Your task to perform on an android device: Open settings Image 0: 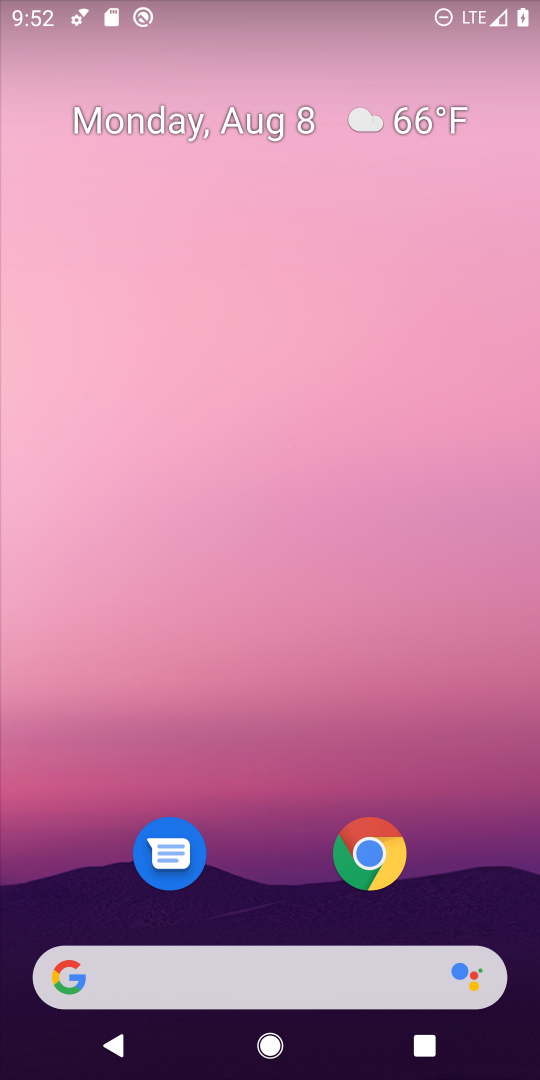
Step 0: drag from (284, 860) to (1, 188)
Your task to perform on an android device: Open settings Image 1: 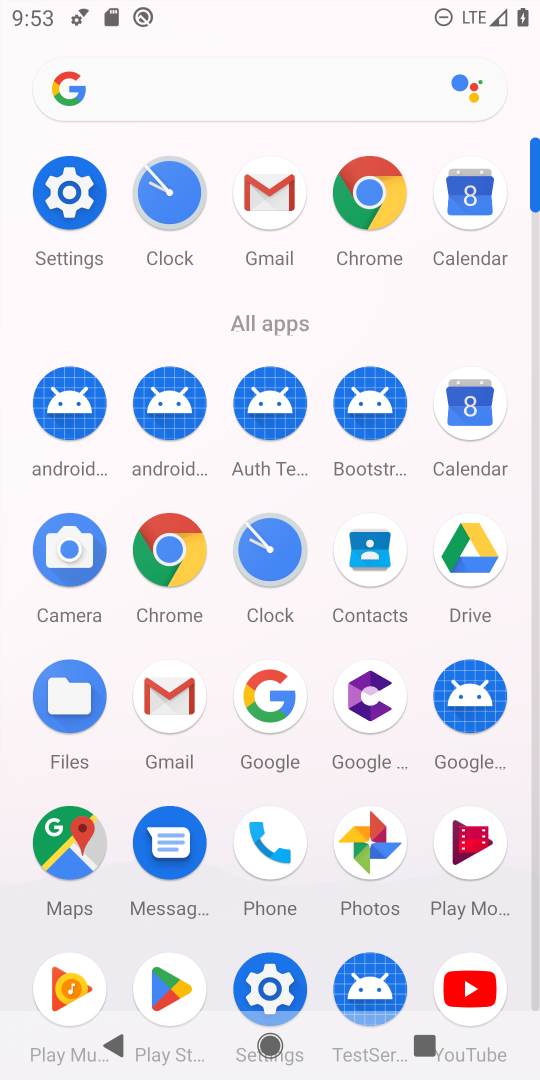
Step 1: click (52, 174)
Your task to perform on an android device: Open settings Image 2: 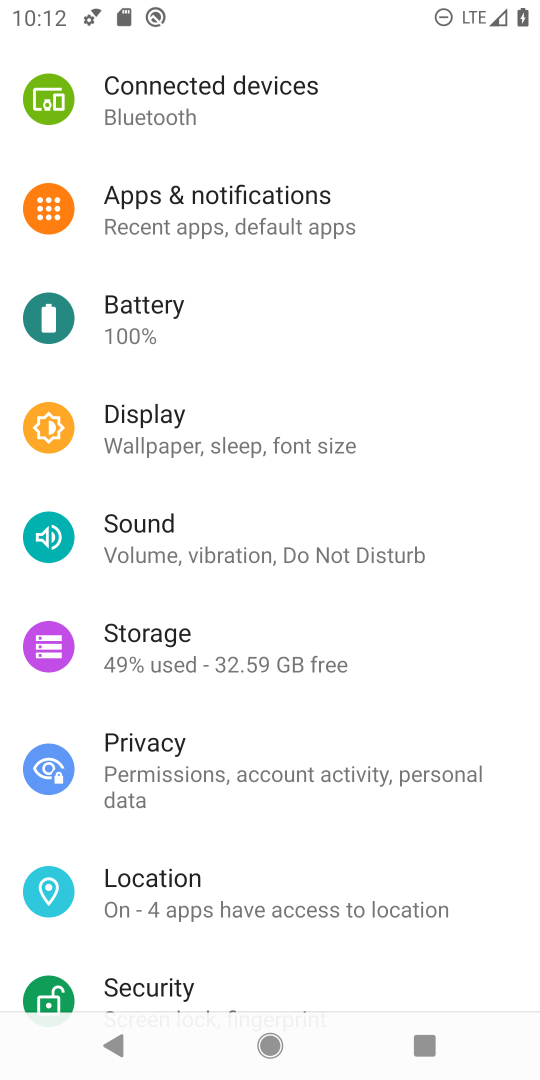
Step 2: task complete